Your task to perform on an android device: What is the news today? Image 0: 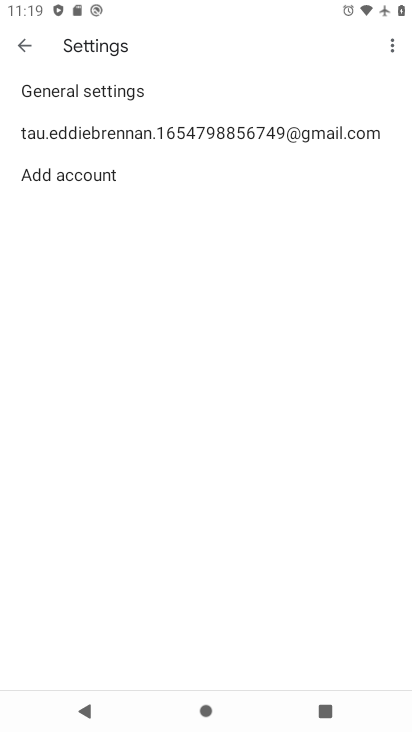
Step 0: press home button
Your task to perform on an android device: What is the news today? Image 1: 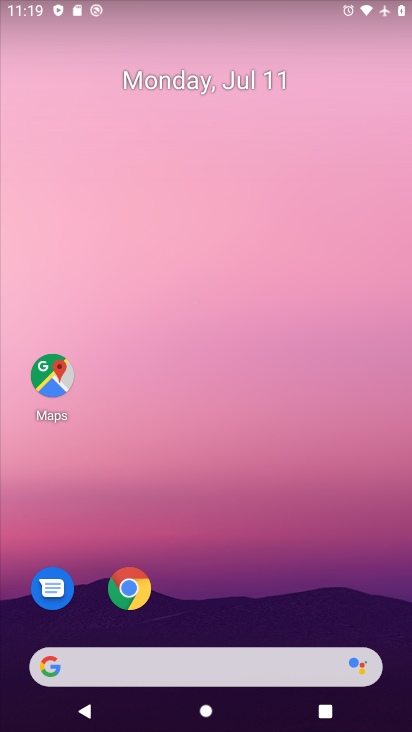
Step 1: click (158, 675)
Your task to perform on an android device: What is the news today? Image 2: 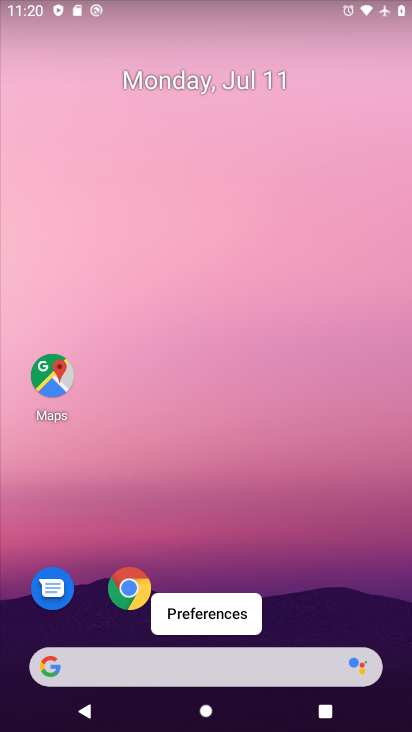
Step 2: click (173, 658)
Your task to perform on an android device: What is the news today? Image 3: 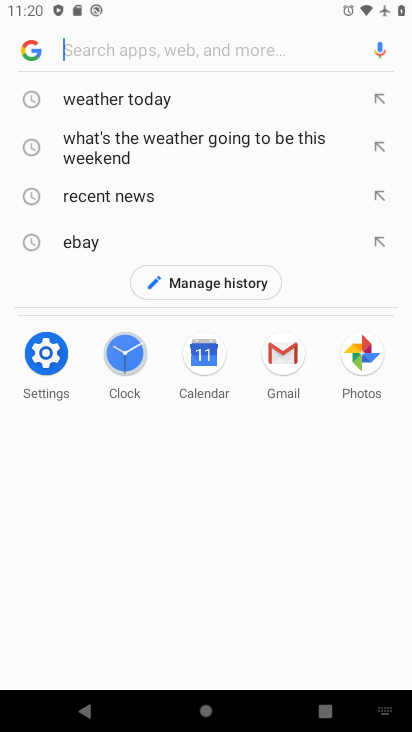
Step 3: click (122, 198)
Your task to perform on an android device: What is the news today? Image 4: 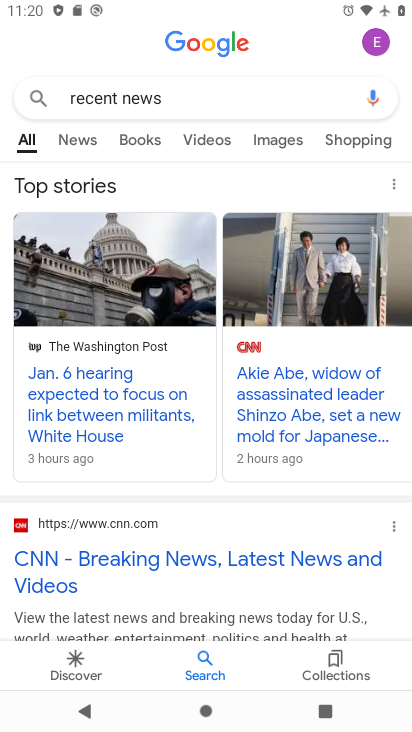
Step 4: click (88, 138)
Your task to perform on an android device: What is the news today? Image 5: 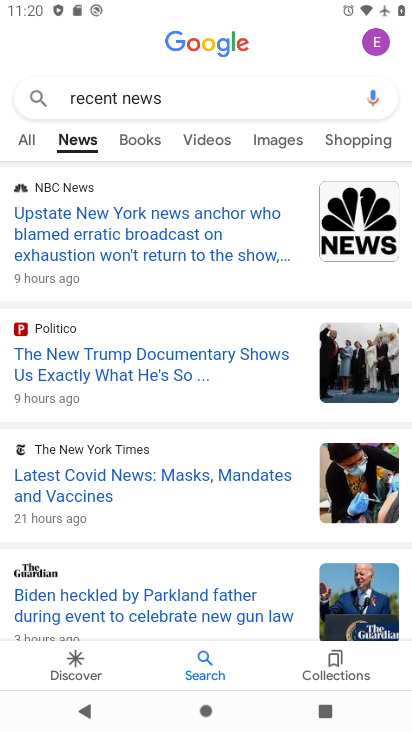
Step 5: task complete